Your task to perform on an android device: Open Reddit.com Image 0: 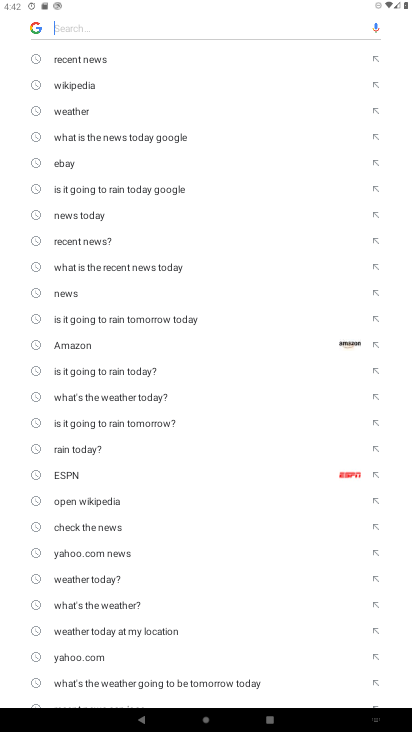
Step 0: press home button
Your task to perform on an android device: Open Reddit.com Image 1: 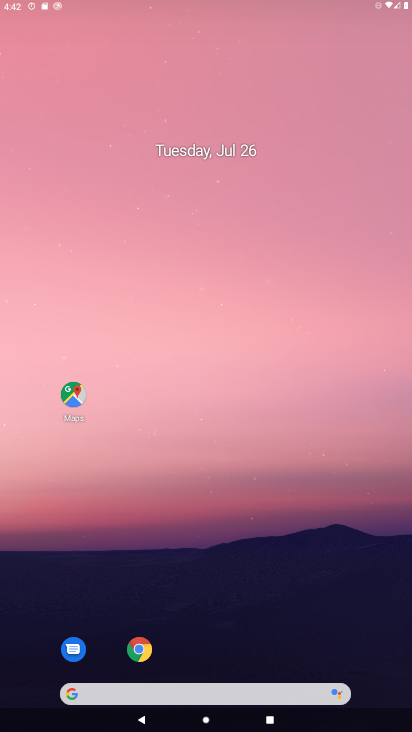
Step 1: drag from (238, 246) to (196, 98)
Your task to perform on an android device: Open Reddit.com Image 2: 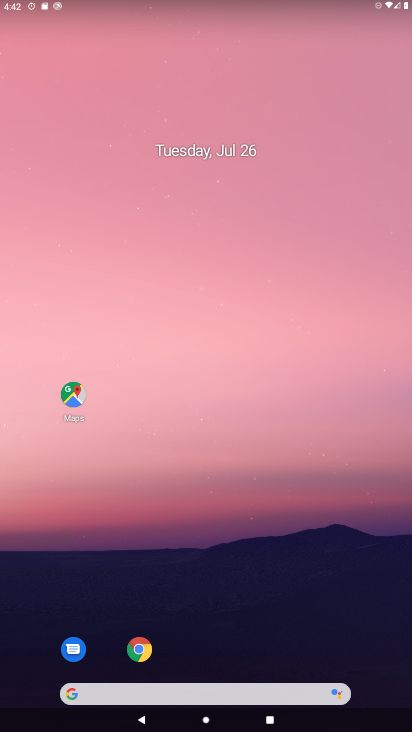
Step 2: drag from (379, 652) to (218, 15)
Your task to perform on an android device: Open Reddit.com Image 3: 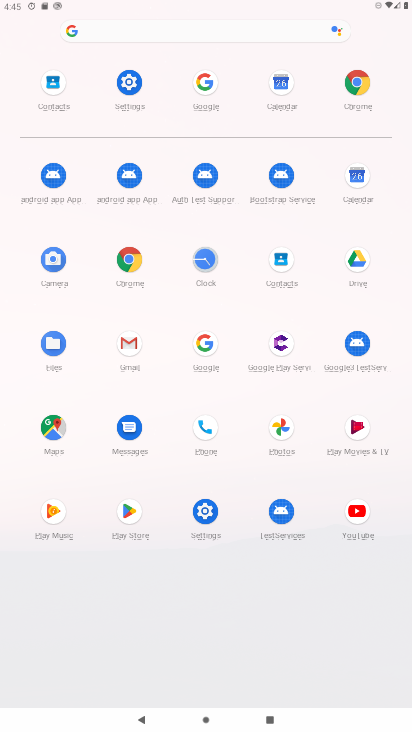
Step 3: click (206, 335)
Your task to perform on an android device: Open Reddit.com Image 4: 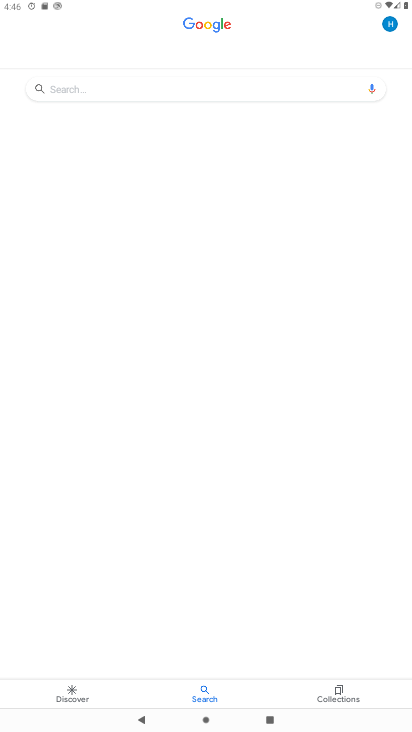
Step 4: click (118, 94)
Your task to perform on an android device: Open Reddit.com Image 5: 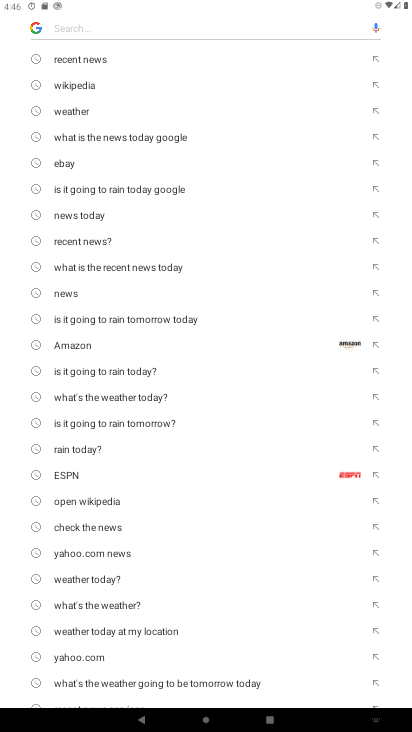
Step 5: type "Reddit.com"
Your task to perform on an android device: Open Reddit.com Image 6: 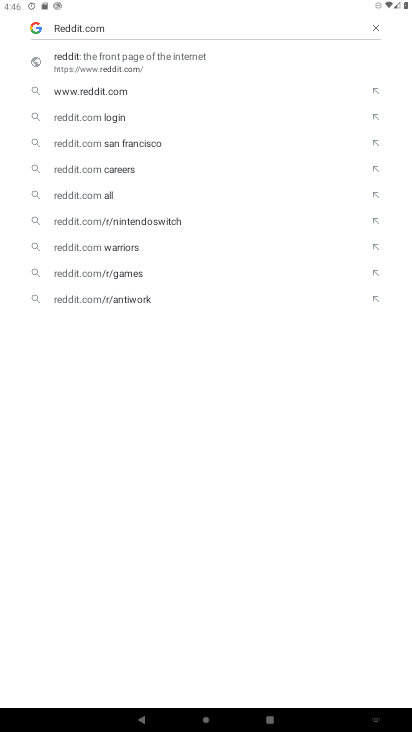
Step 6: click (84, 66)
Your task to perform on an android device: Open Reddit.com Image 7: 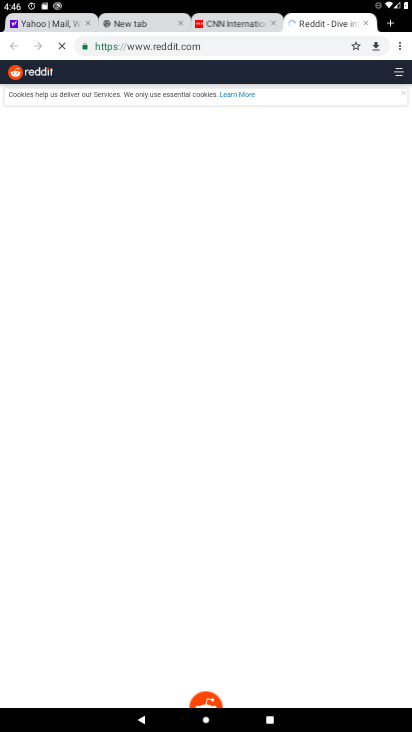
Step 7: task complete